Your task to perform on an android device: turn on priority inbox in the gmail app Image 0: 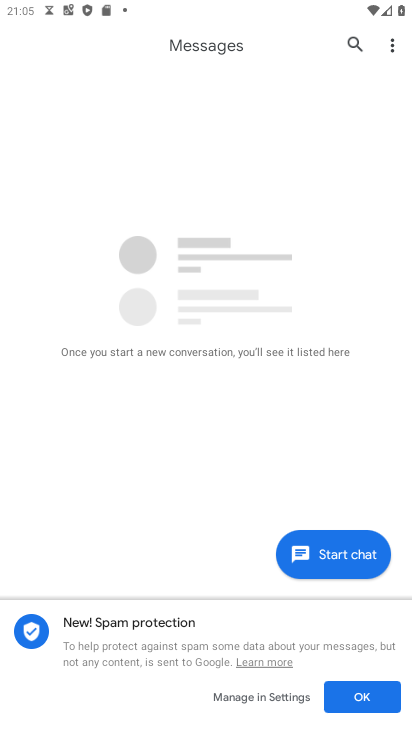
Step 0: press home button
Your task to perform on an android device: turn on priority inbox in the gmail app Image 1: 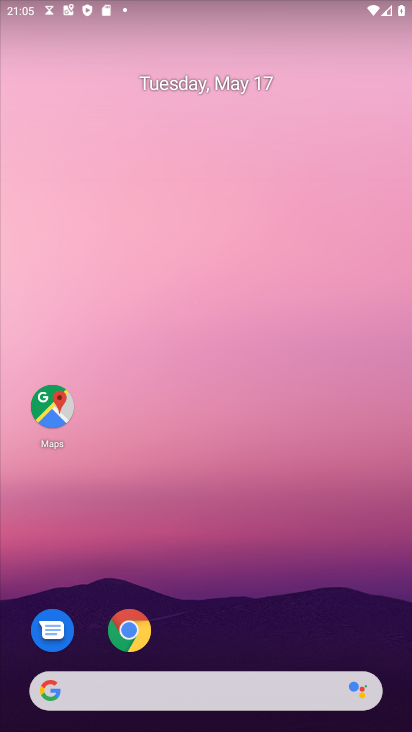
Step 1: drag from (213, 646) to (188, 73)
Your task to perform on an android device: turn on priority inbox in the gmail app Image 2: 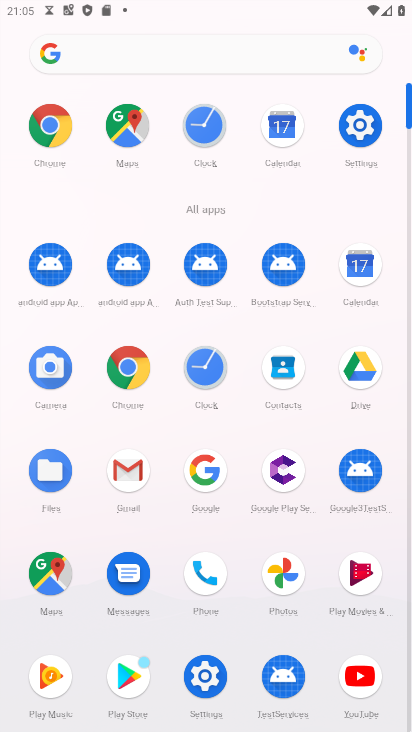
Step 2: click (130, 483)
Your task to perform on an android device: turn on priority inbox in the gmail app Image 3: 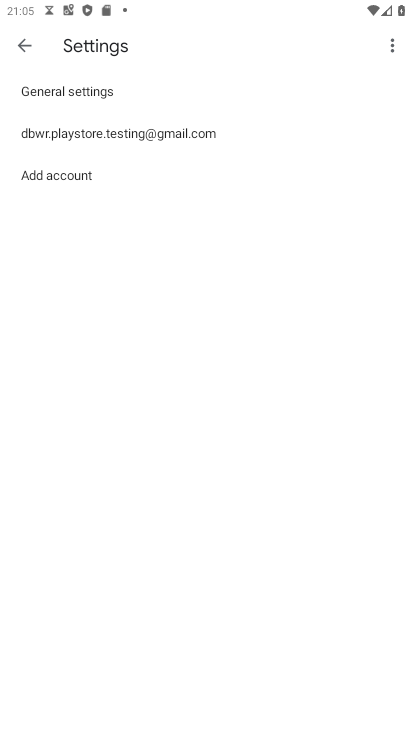
Step 3: click (155, 135)
Your task to perform on an android device: turn on priority inbox in the gmail app Image 4: 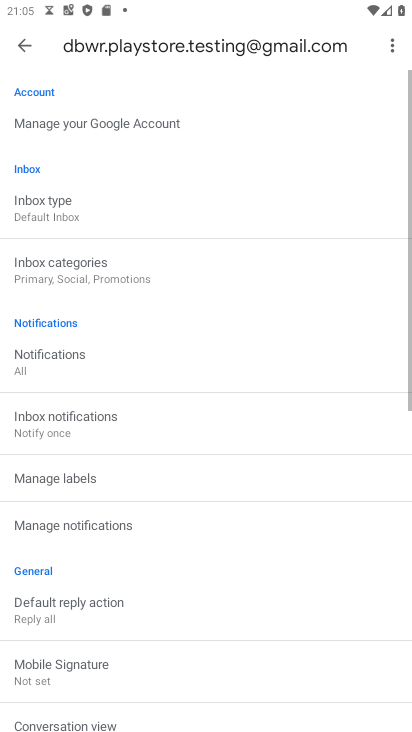
Step 4: click (43, 213)
Your task to perform on an android device: turn on priority inbox in the gmail app Image 5: 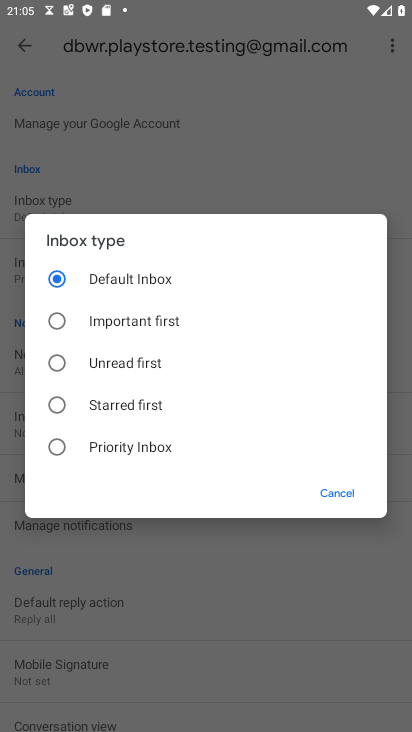
Step 5: click (57, 445)
Your task to perform on an android device: turn on priority inbox in the gmail app Image 6: 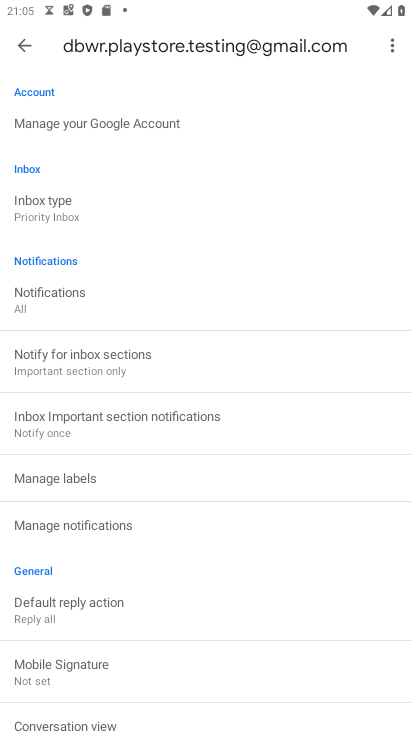
Step 6: task complete